Your task to perform on an android device: Show me popular videos on Youtube Image 0: 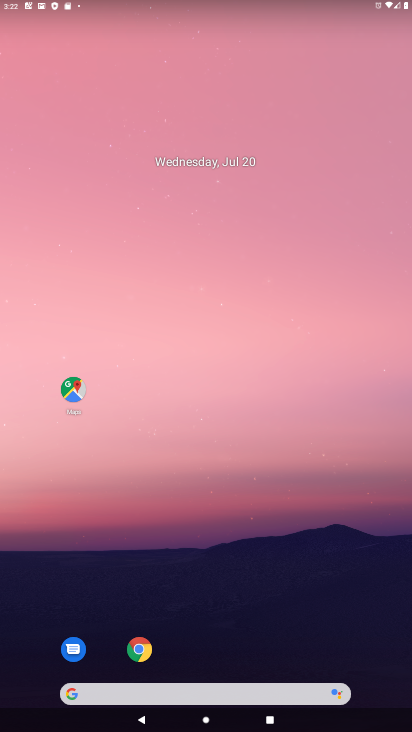
Step 0: drag from (158, 691) to (223, 163)
Your task to perform on an android device: Show me popular videos on Youtube Image 1: 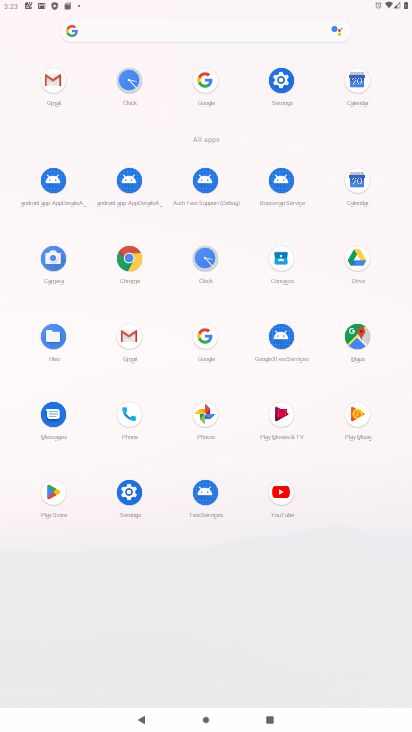
Step 1: click (281, 491)
Your task to perform on an android device: Show me popular videos on Youtube Image 2: 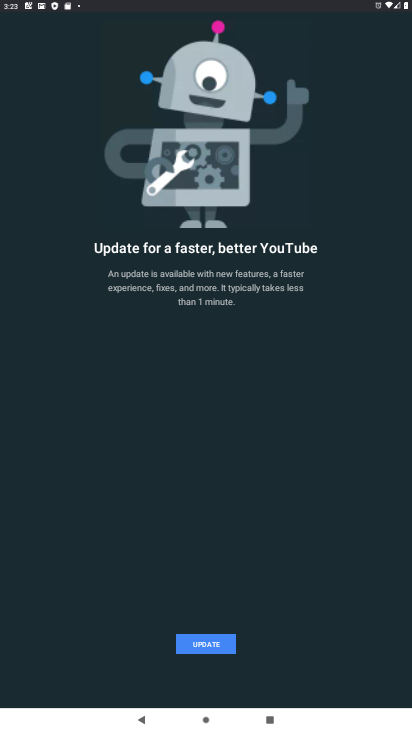
Step 2: click (206, 644)
Your task to perform on an android device: Show me popular videos on Youtube Image 3: 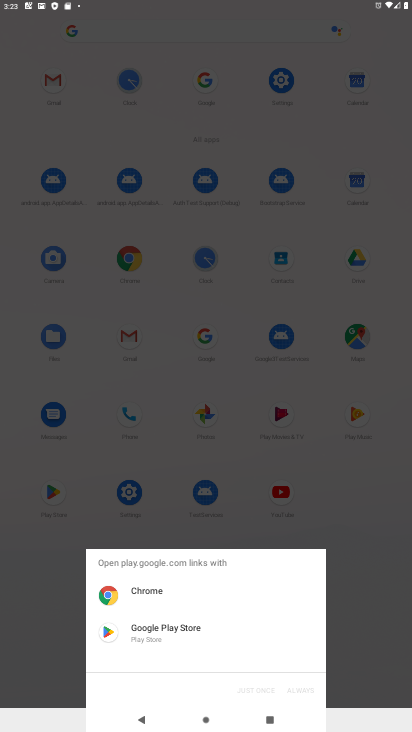
Step 3: click (182, 630)
Your task to perform on an android device: Show me popular videos on Youtube Image 4: 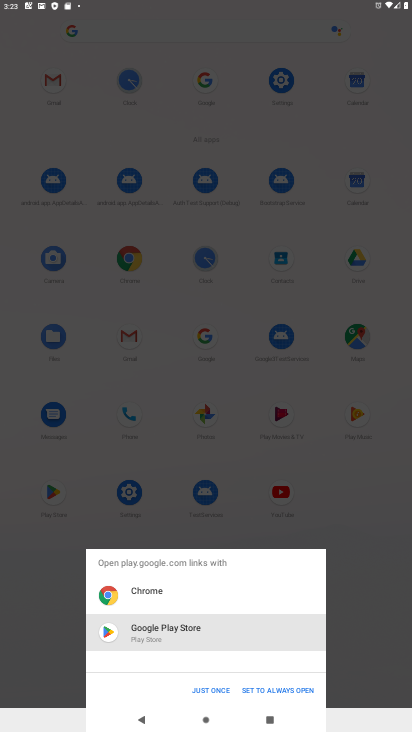
Step 4: click (206, 688)
Your task to perform on an android device: Show me popular videos on Youtube Image 5: 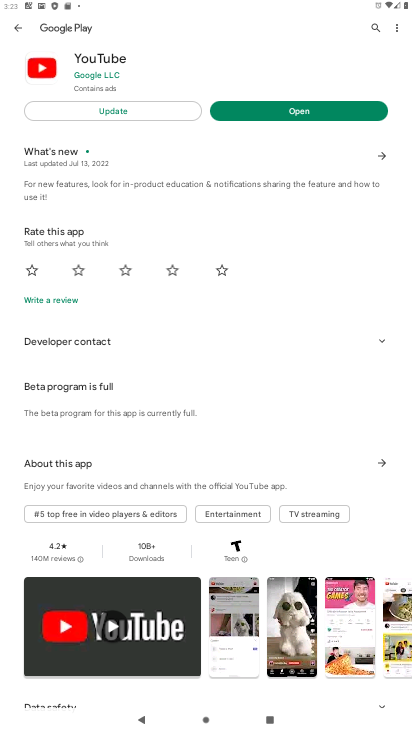
Step 5: click (117, 113)
Your task to perform on an android device: Show me popular videos on Youtube Image 6: 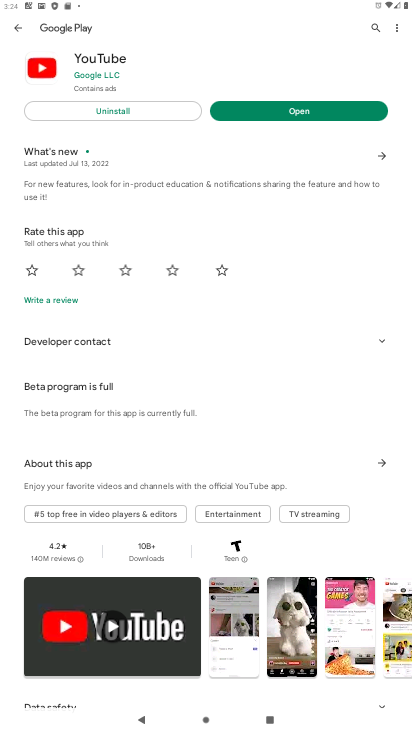
Step 6: click (310, 113)
Your task to perform on an android device: Show me popular videos on Youtube Image 7: 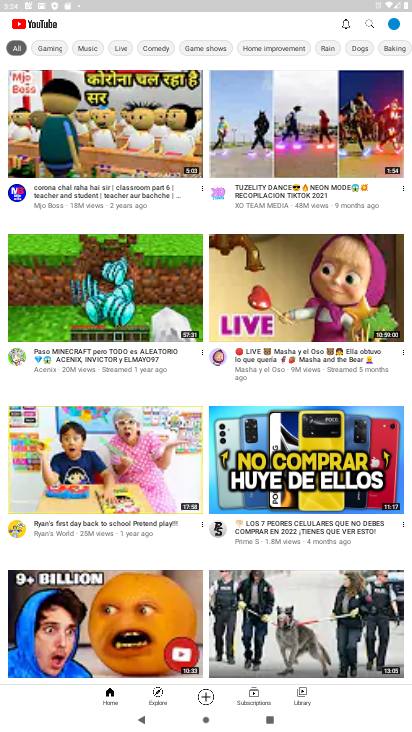
Step 7: click (371, 22)
Your task to perform on an android device: Show me popular videos on Youtube Image 8: 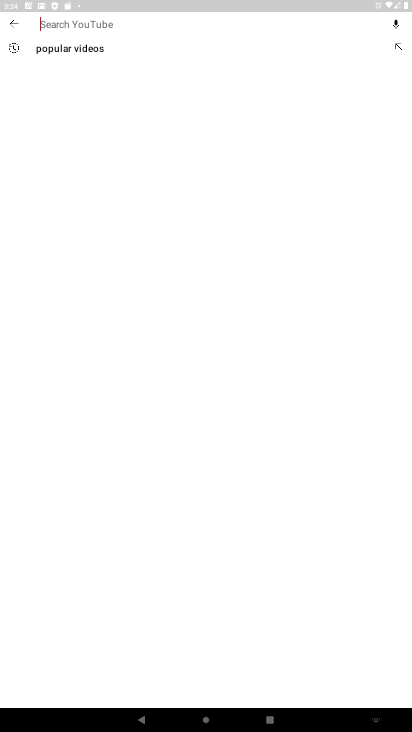
Step 8: click (90, 48)
Your task to perform on an android device: Show me popular videos on Youtube Image 9: 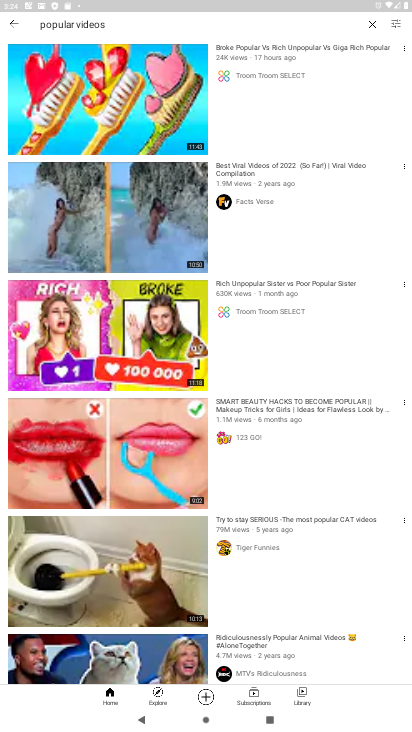
Step 9: task complete